Your task to perform on an android device: turn off sleep mode Image 0: 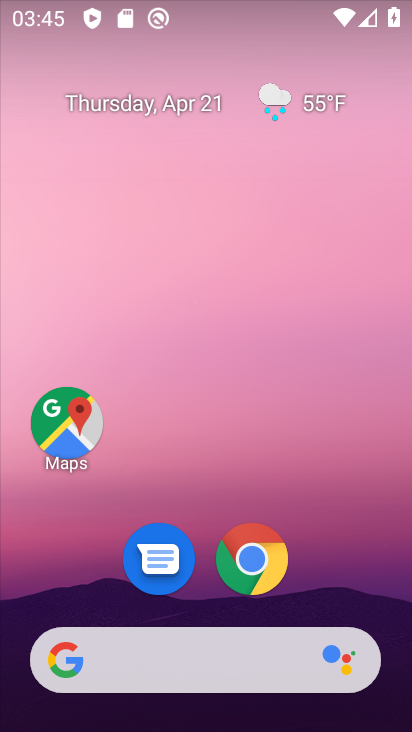
Step 0: drag from (348, 537) to (285, 11)
Your task to perform on an android device: turn off sleep mode Image 1: 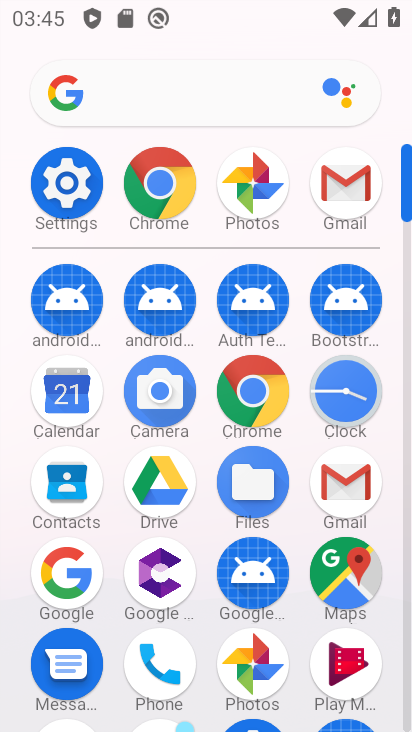
Step 1: click (77, 237)
Your task to perform on an android device: turn off sleep mode Image 2: 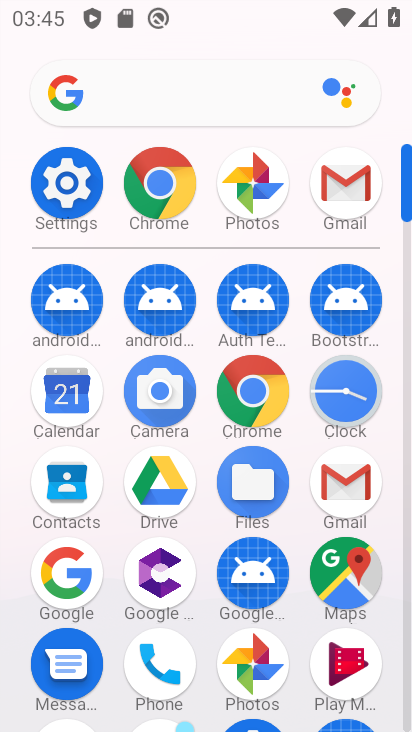
Step 2: click (73, 211)
Your task to perform on an android device: turn off sleep mode Image 3: 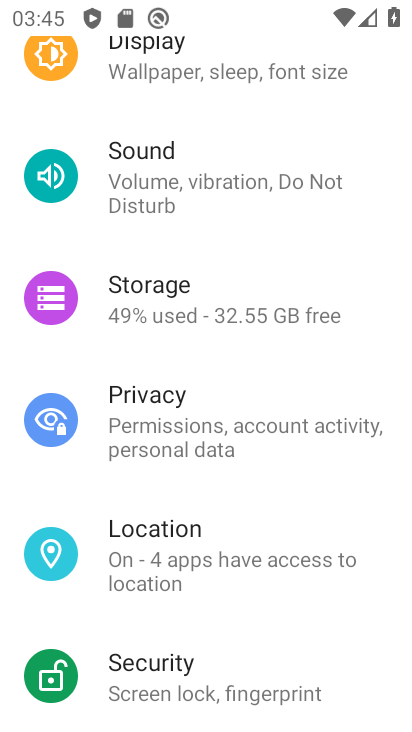
Step 3: drag from (320, 659) to (243, 248)
Your task to perform on an android device: turn off sleep mode Image 4: 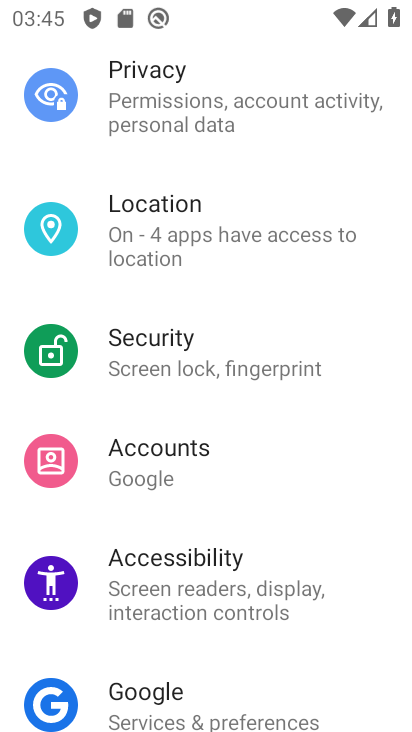
Step 4: drag from (240, 164) to (194, 643)
Your task to perform on an android device: turn off sleep mode Image 5: 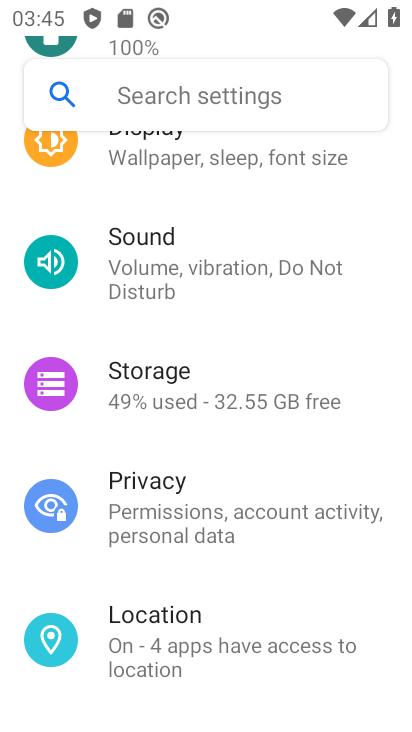
Step 5: click (137, 160)
Your task to perform on an android device: turn off sleep mode Image 6: 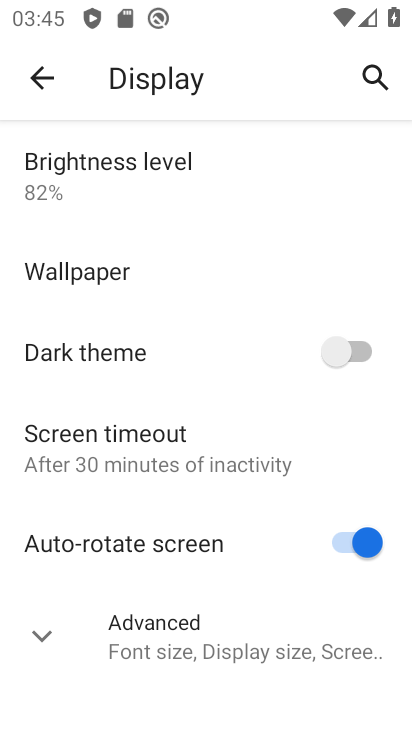
Step 6: drag from (283, 615) to (206, 158)
Your task to perform on an android device: turn off sleep mode Image 7: 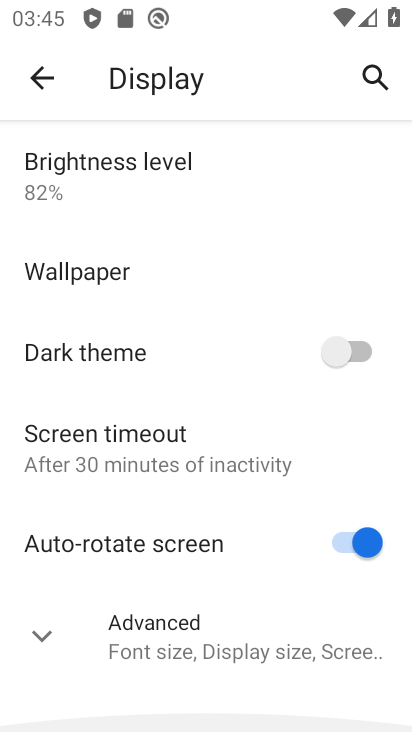
Step 7: click (200, 646)
Your task to perform on an android device: turn off sleep mode Image 8: 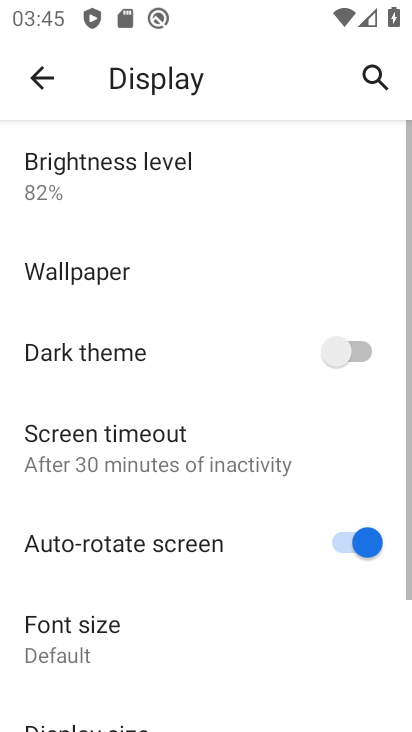
Step 8: task complete